Your task to perform on an android device: Go to Google Image 0: 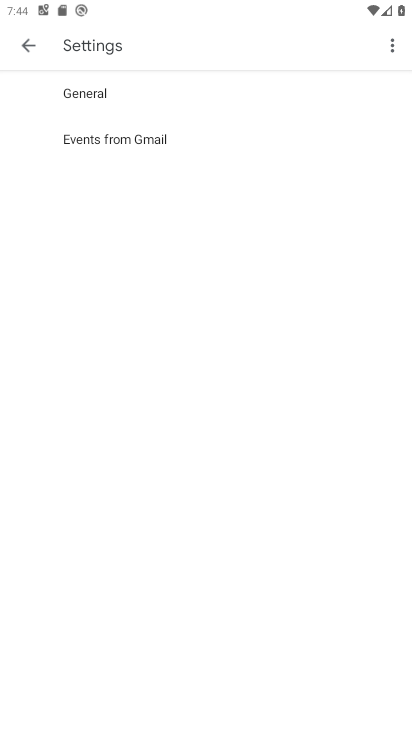
Step 0: press home button
Your task to perform on an android device: Go to Google Image 1: 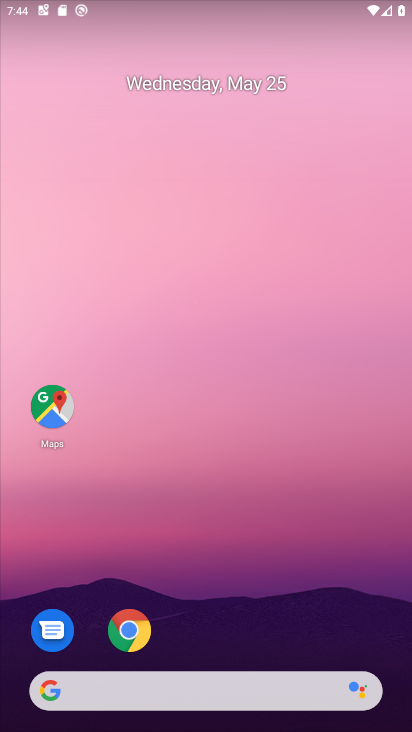
Step 1: drag from (234, 626) to (321, 202)
Your task to perform on an android device: Go to Google Image 2: 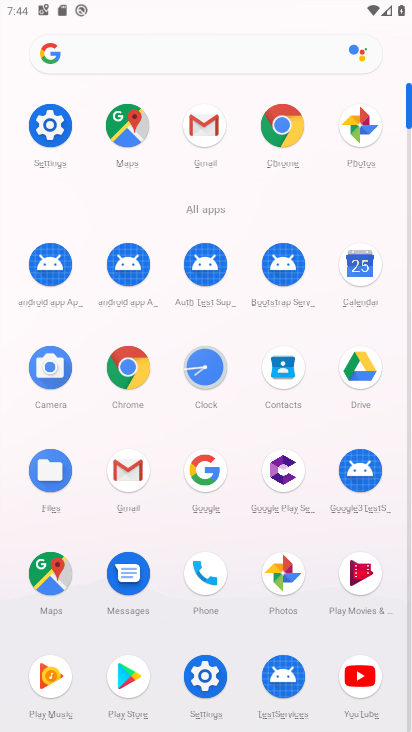
Step 2: click (215, 470)
Your task to perform on an android device: Go to Google Image 3: 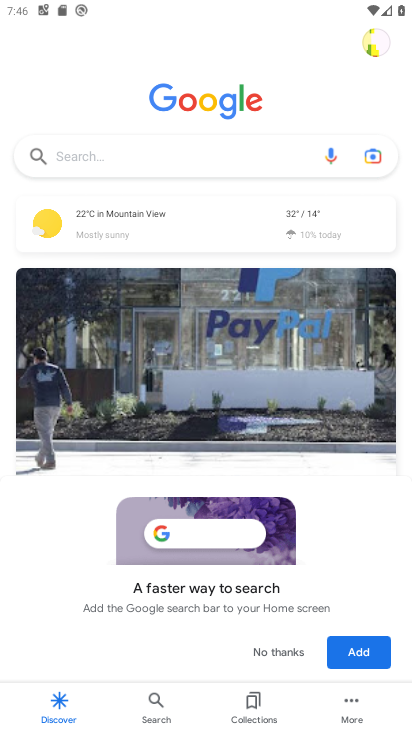
Step 3: task complete